Your task to perform on an android device: Search for the best fantasy books on Goodreads. Image 0: 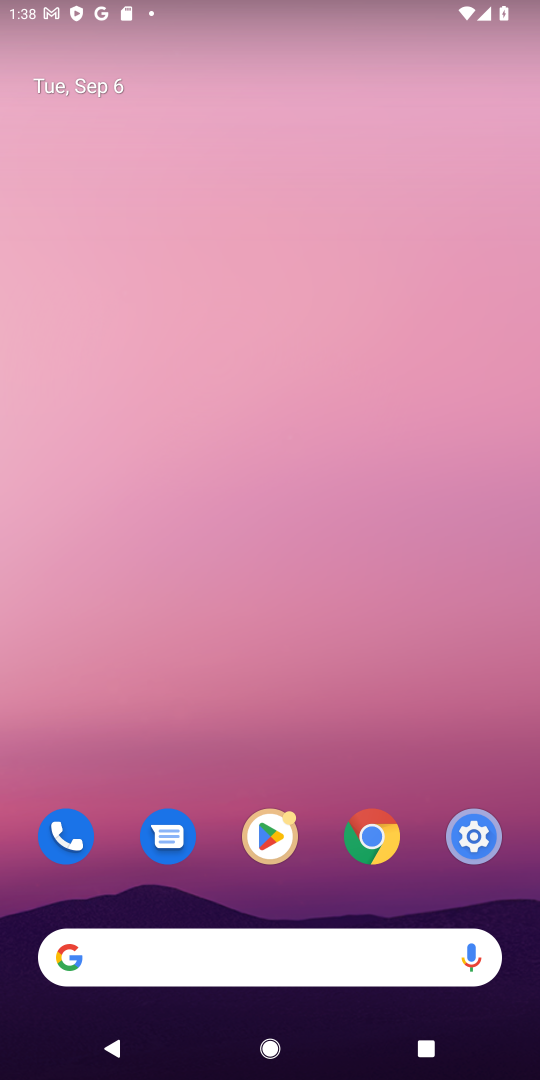
Step 0: click (262, 953)
Your task to perform on an android device: Search for the best fantasy books on Goodreads. Image 1: 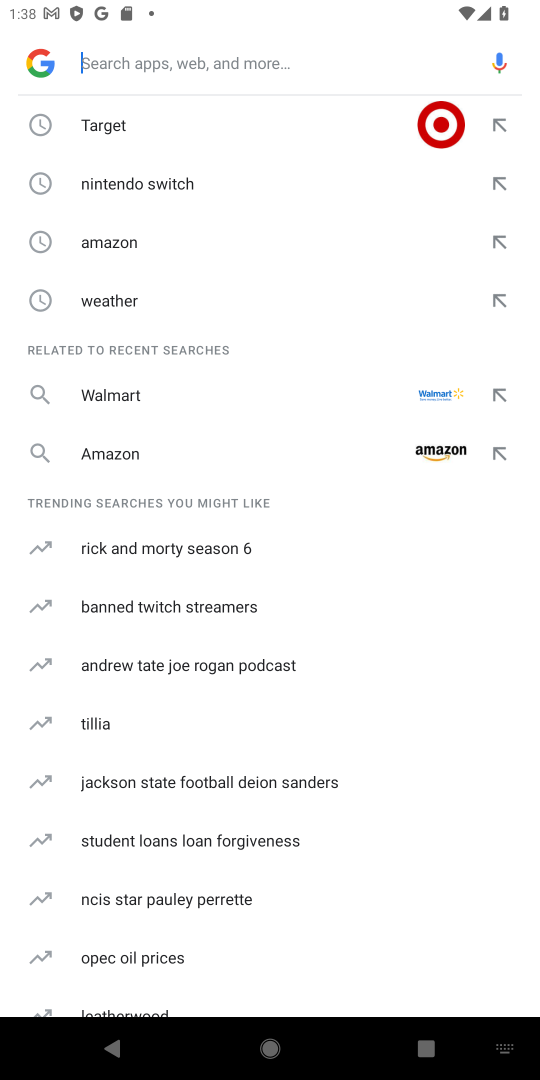
Step 1: type "goodreads"
Your task to perform on an android device: Search for the best fantasy books on Goodreads. Image 2: 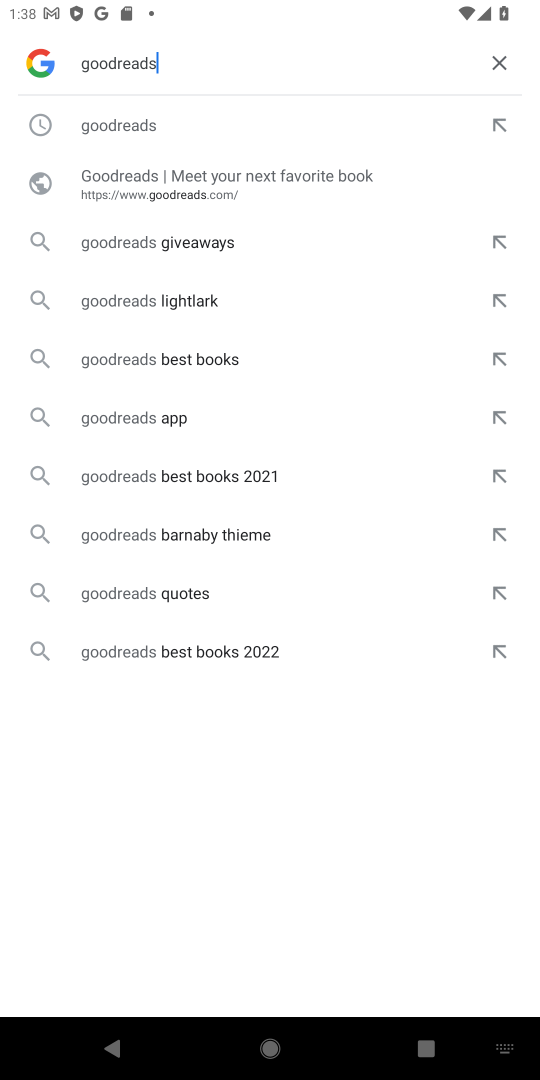
Step 2: click (168, 123)
Your task to perform on an android device: Search for the best fantasy books on Goodreads. Image 3: 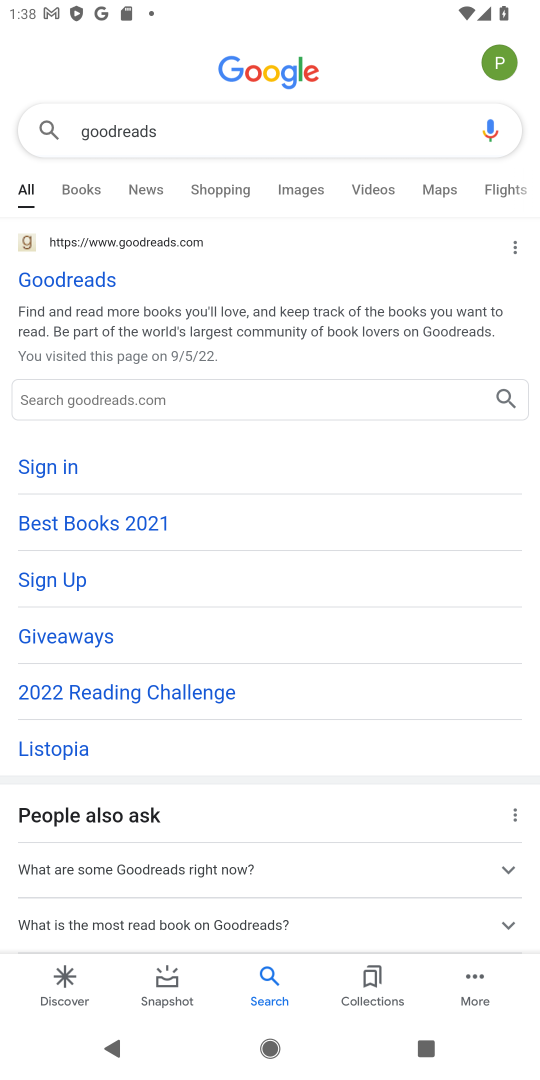
Step 3: click (66, 275)
Your task to perform on an android device: Search for the best fantasy books on Goodreads. Image 4: 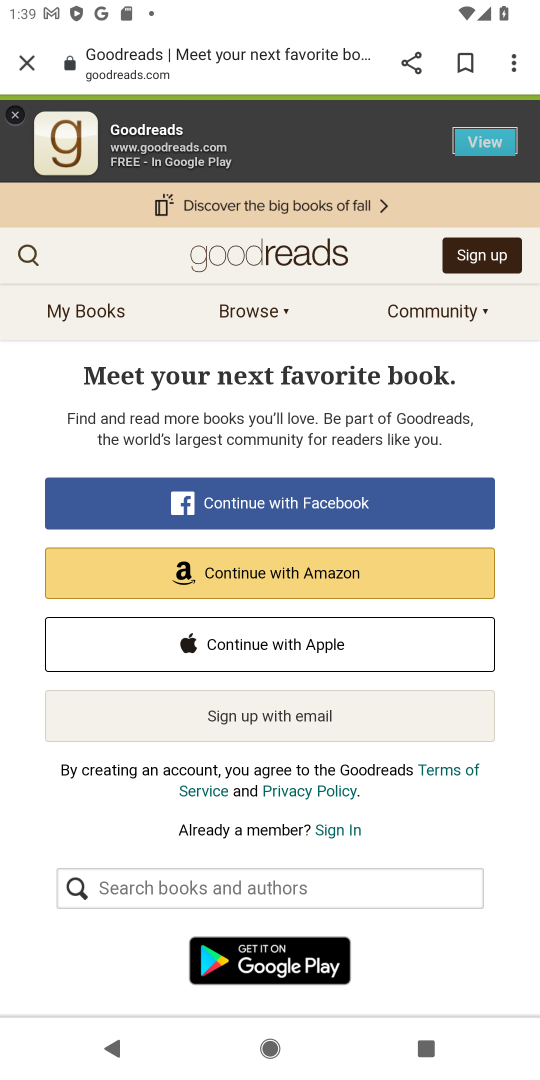
Step 4: click (23, 259)
Your task to perform on an android device: Search for the best fantasy books on Goodreads. Image 5: 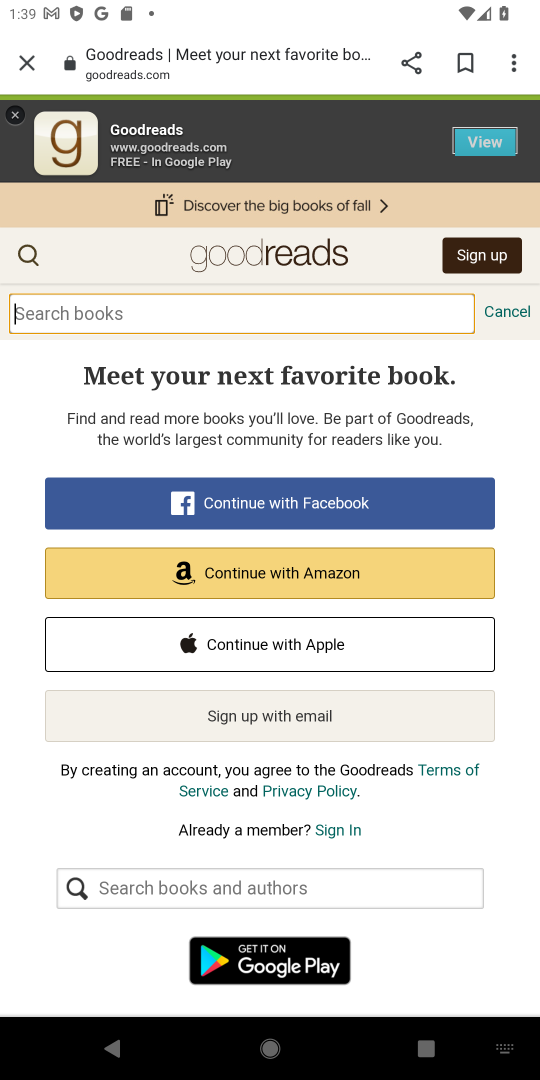
Step 5: type "best fantasy books"
Your task to perform on an android device: Search for the best fantasy books on Goodreads. Image 6: 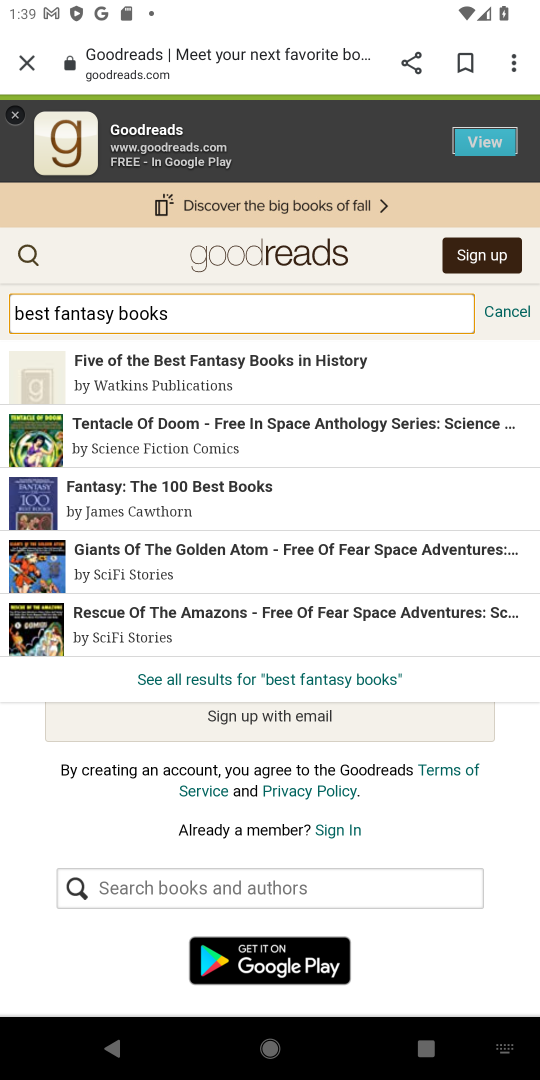
Step 6: click (269, 676)
Your task to perform on an android device: Search for the best fantasy books on Goodreads. Image 7: 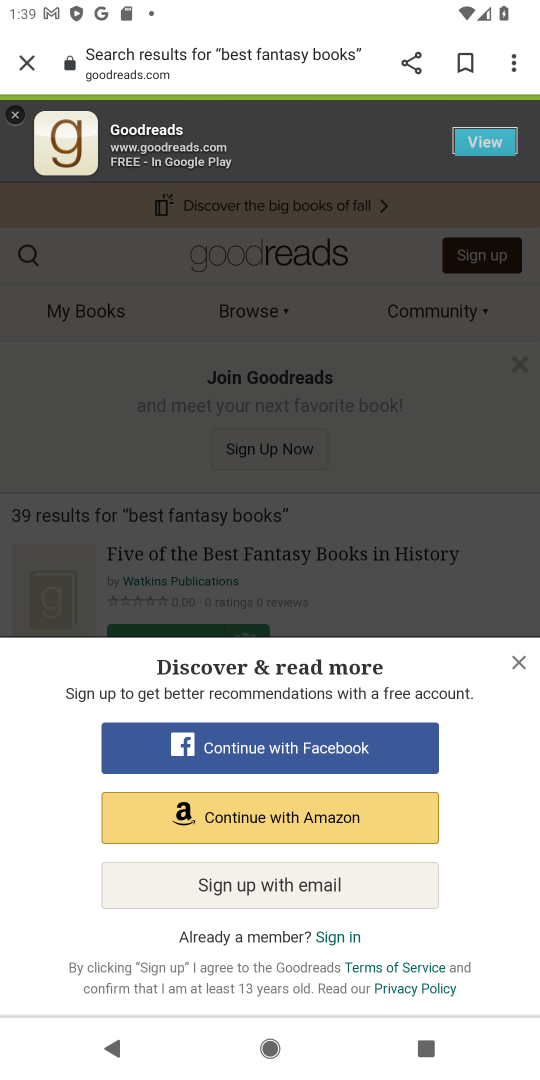
Step 7: click (517, 669)
Your task to perform on an android device: Search for the best fantasy books on Goodreads. Image 8: 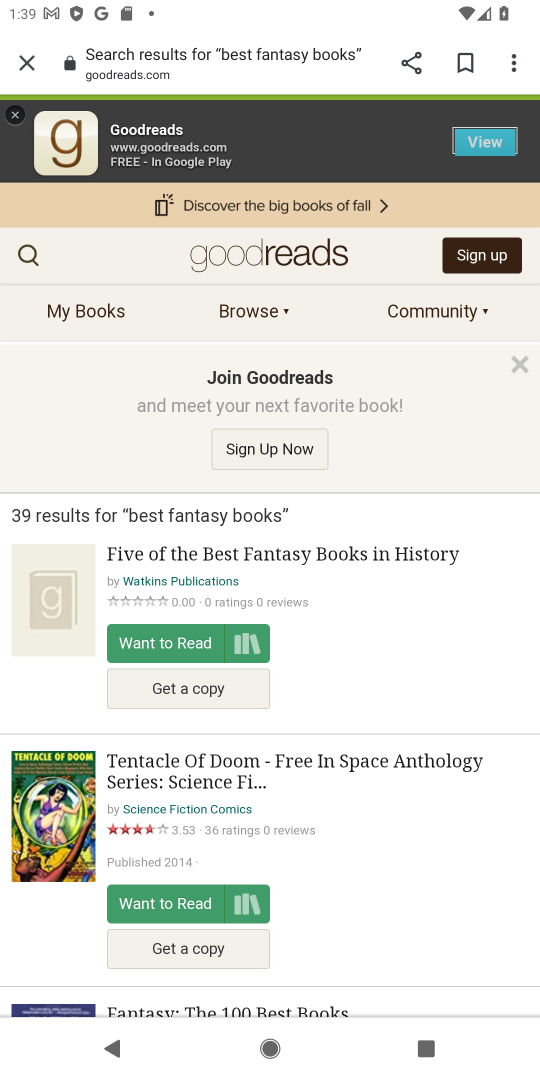
Step 8: task complete